Your task to perform on an android device: What's the weather going to be tomorrow? Image 0: 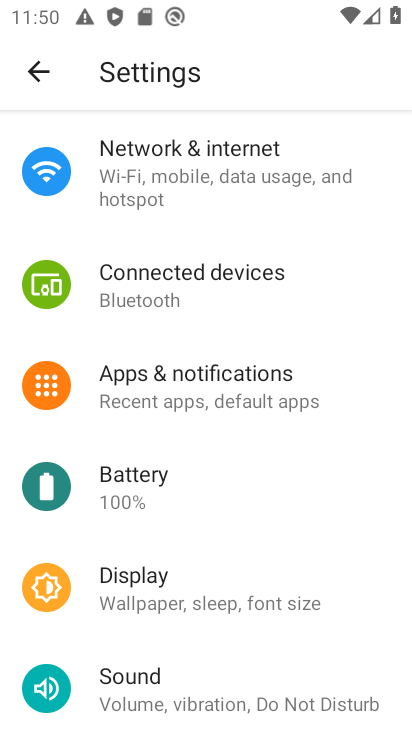
Step 0: drag from (195, 583) to (215, 399)
Your task to perform on an android device: What's the weather going to be tomorrow? Image 1: 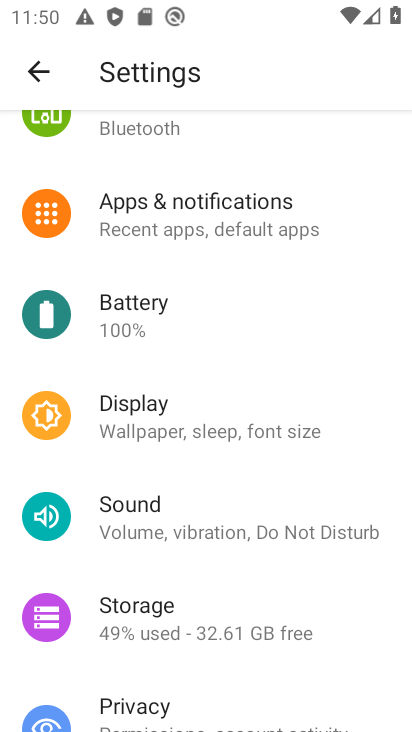
Step 1: drag from (174, 484) to (167, 596)
Your task to perform on an android device: What's the weather going to be tomorrow? Image 2: 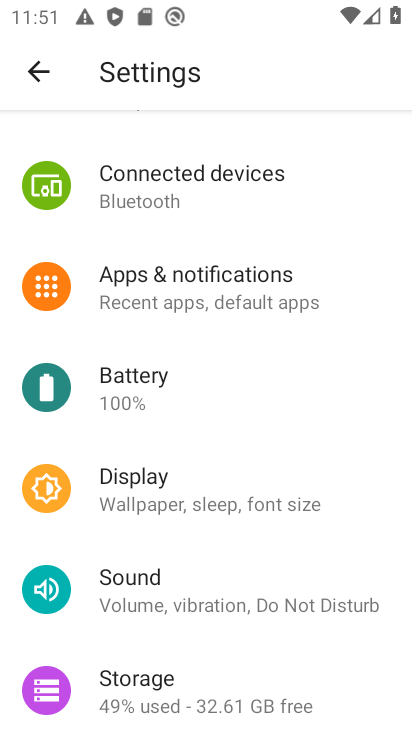
Step 2: click (267, 152)
Your task to perform on an android device: What's the weather going to be tomorrow? Image 3: 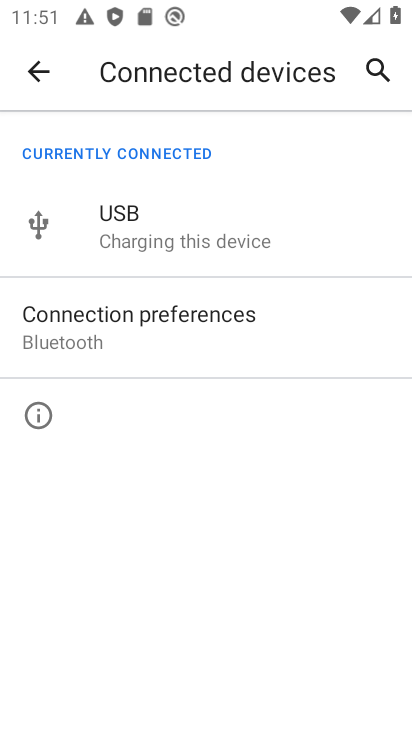
Step 3: press home button
Your task to perform on an android device: What's the weather going to be tomorrow? Image 4: 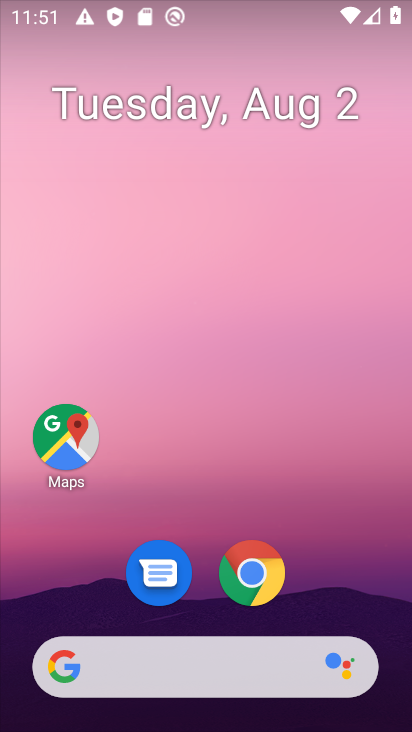
Step 4: drag from (192, 657) to (317, 20)
Your task to perform on an android device: What's the weather going to be tomorrow? Image 5: 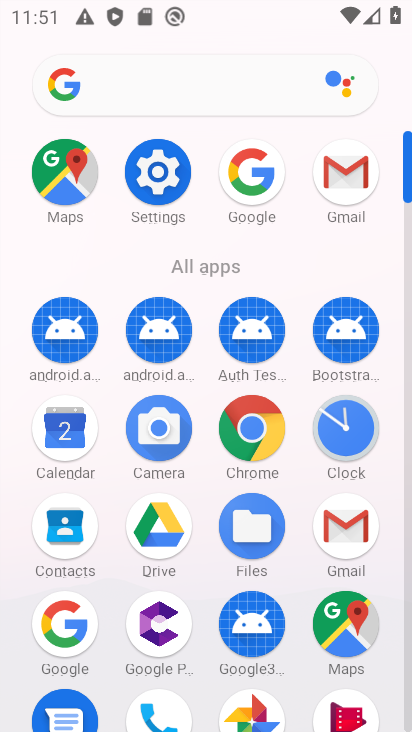
Step 5: click (50, 633)
Your task to perform on an android device: What's the weather going to be tomorrow? Image 6: 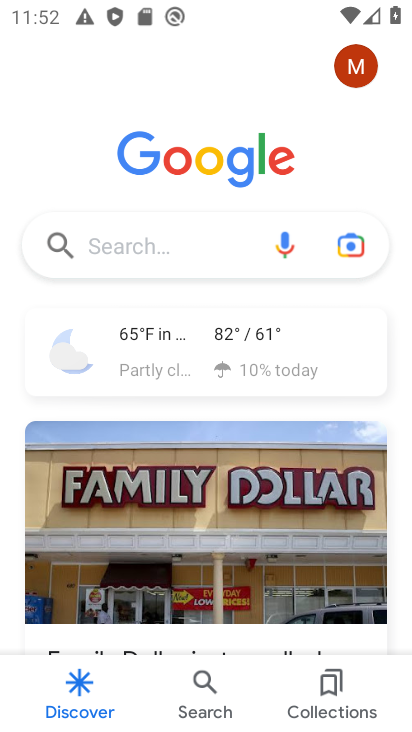
Step 6: click (177, 247)
Your task to perform on an android device: What's the weather going to be tomorrow? Image 7: 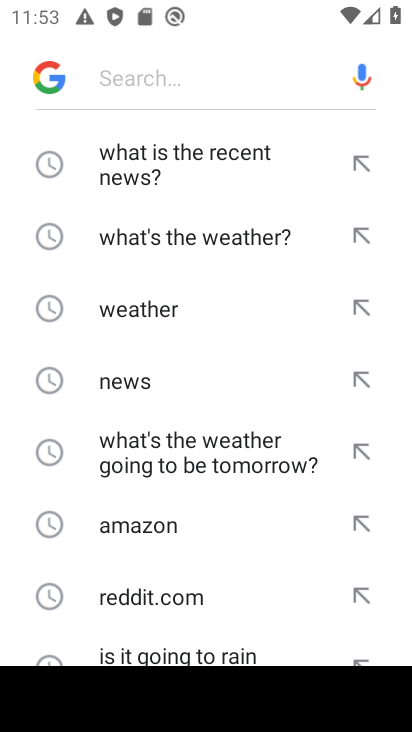
Step 7: click (188, 240)
Your task to perform on an android device: What's the weather going to be tomorrow? Image 8: 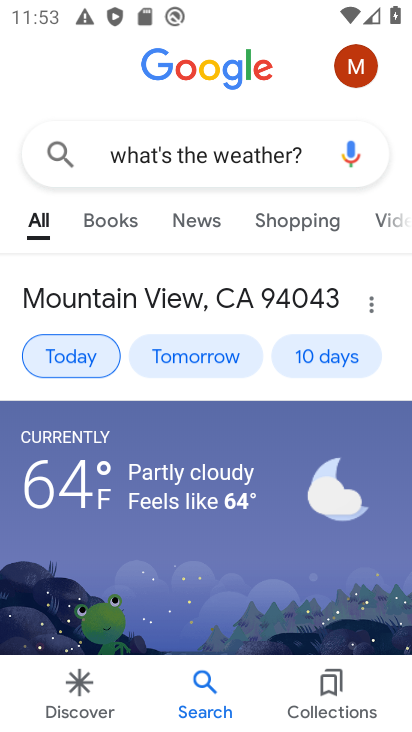
Step 8: click (208, 354)
Your task to perform on an android device: What's the weather going to be tomorrow? Image 9: 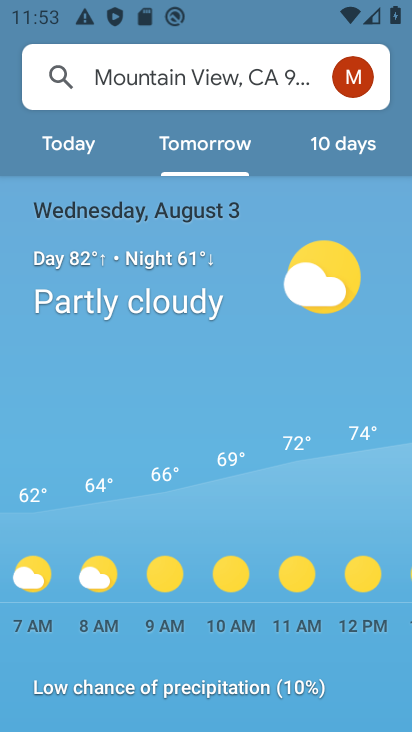
Step 9: task complete